Your task to perform on an android device: clear history in the chrome app Image 0: 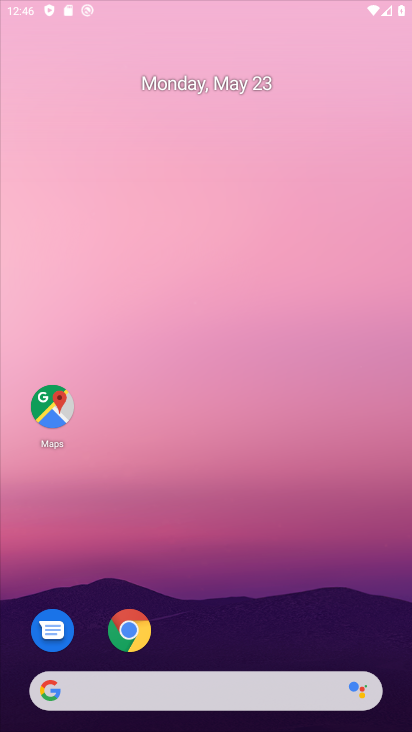
Step 0: press home button
Your task to perform on an android device: clear history in the chrome app Image 1: 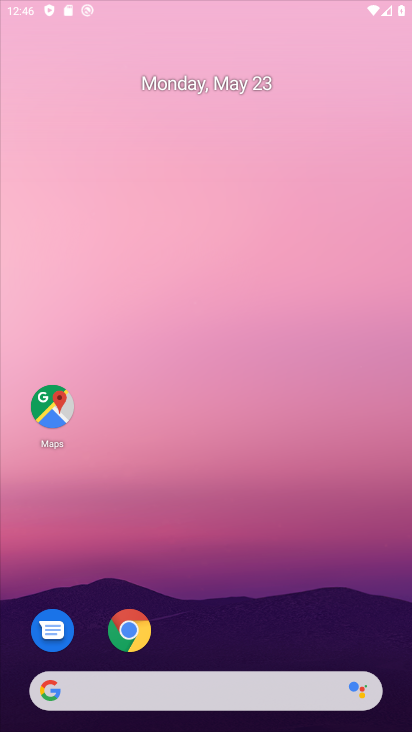
Step 1: click (384, 150)
Your task to perform on an android device: clear history in the chrome app Image 2: 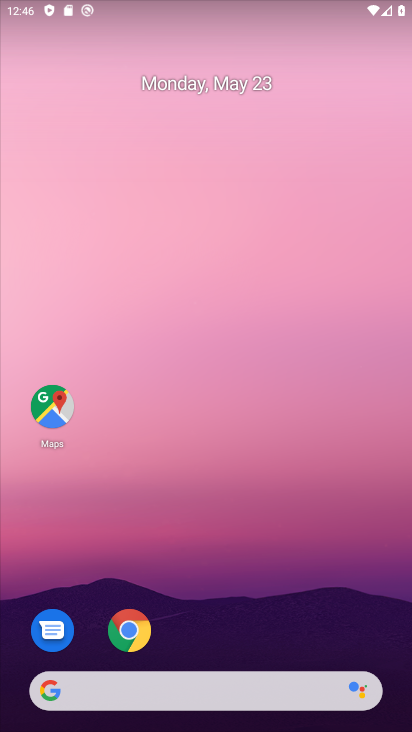
Step 2: drag from (298, 456) to (307, 184)
Your task to perform on an android device: clear history in the chrome app Image 3: 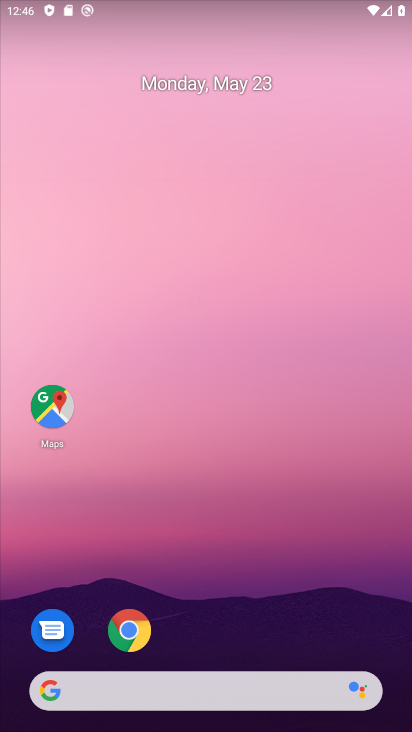
Step 3: click (131, 635)
Your task to perform on an android device: clear history in the chrome app Image 4: 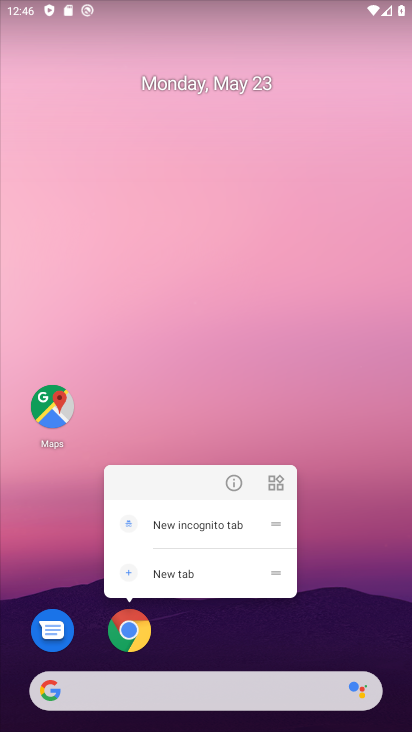
Step 4: click (118, 626)
Your task to perform on an android device: clear history in the chrome app Image 5: 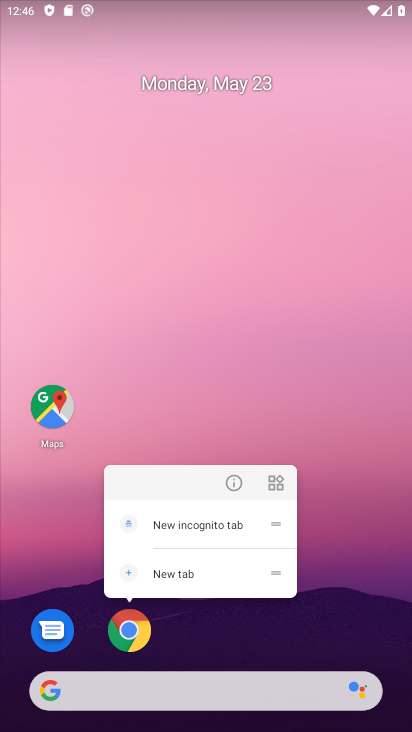
Step 5: click (123, 635)
Your task to perform on an android device: clear history in the chrome app Image 6: 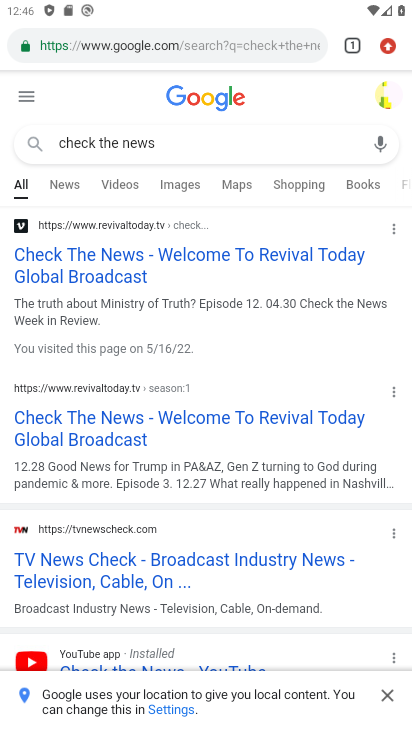
Step 6: drag from (390, 50) to (260, 314)
Your task to perform on an android device: clear history in the chrome app Image 7: 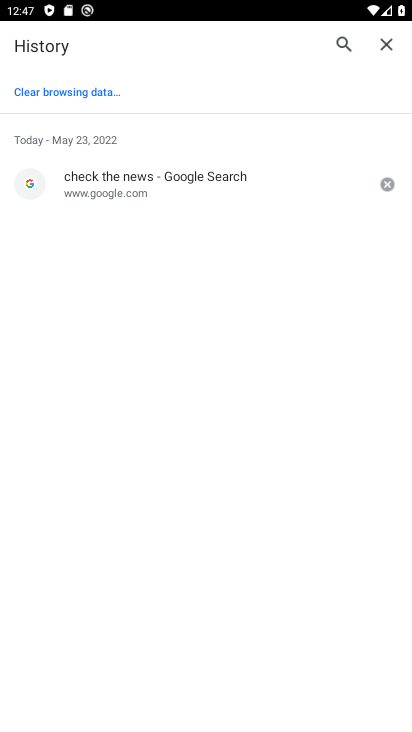
Step 7: click (104, 94)
Your task to perform on an android device: clear history in the chrome app Image 8: 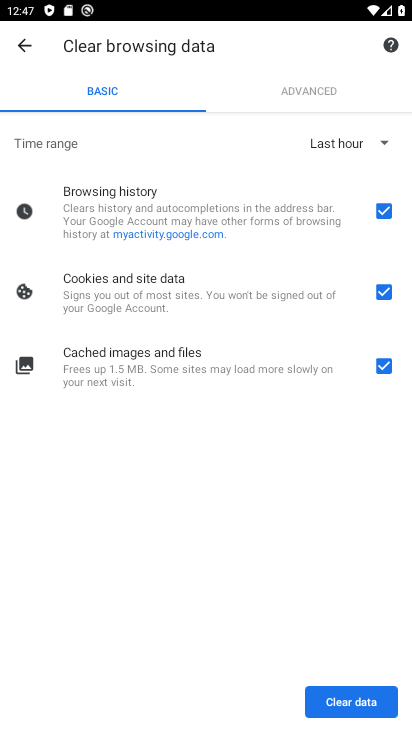
Step 8: click (366, 702)
Your task to perform on an android device: clear history in the chrome app Image 9: 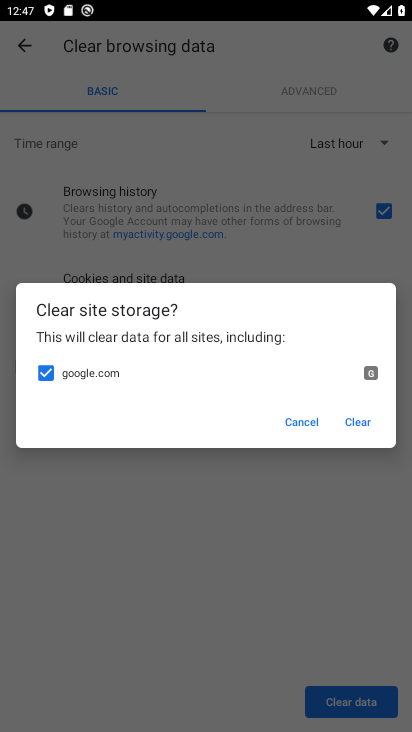
Step 9: click (351, 418)
Your task to perform on an android device: clear history in the chrome app Image 10: 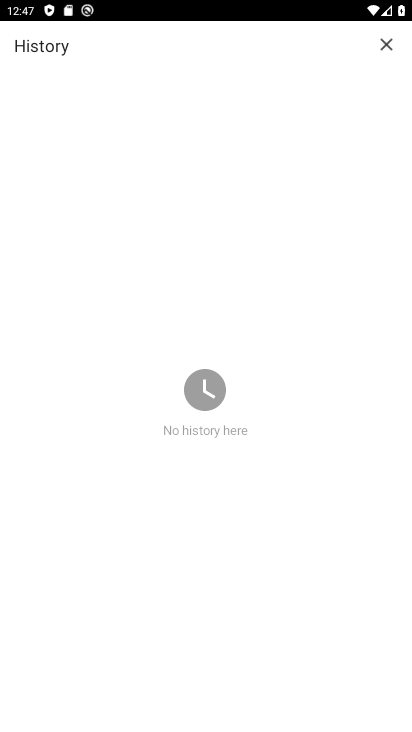
Step 10: task complete